Your task to perform on an android device: toggle sleep mode Image 0: 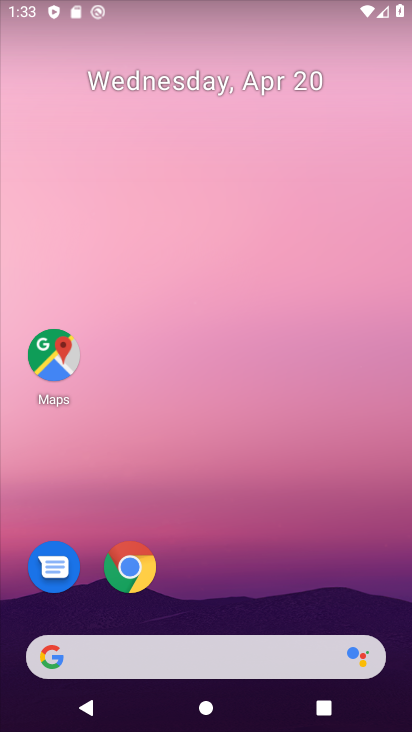
Step 0: drag from (261, 360) to (251, 142)
Your task to perform on an android device: toggle sleep mode Image 1: 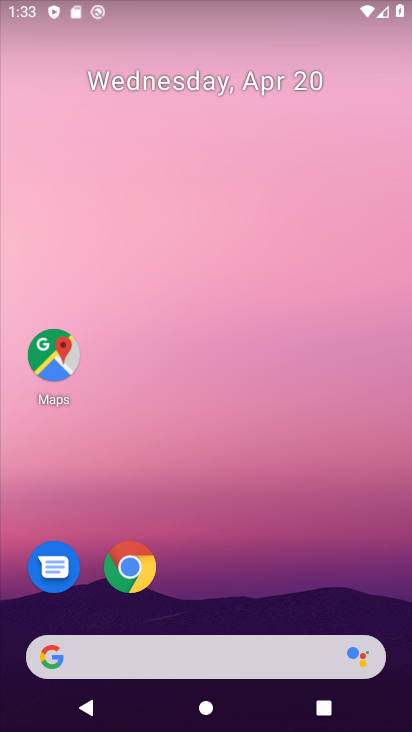
Step 1: drag from (283, 566) to (276, 103)
Your task to perform on an android device: toggle sleep mode Image 2: 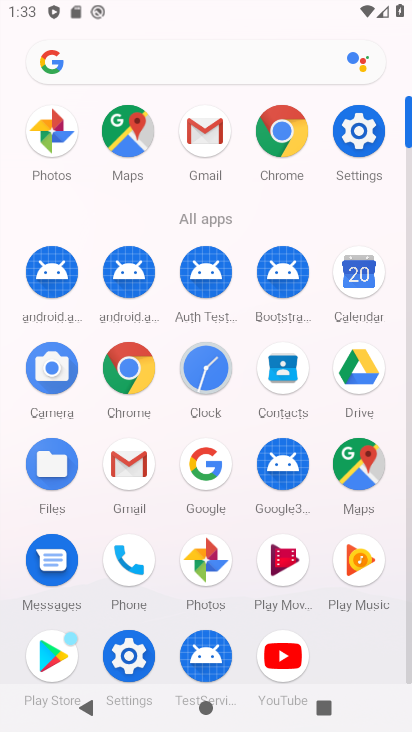
Step 2: click (355, 144)
Your task to perform on an android device: toggle sleep mode Image 3: 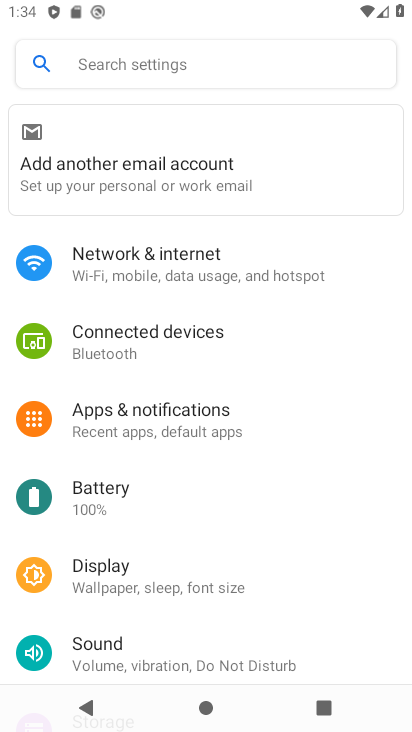
Step 3: click (130, 593)
Your task to perform on an android device: toggle sleep mode Image 4: 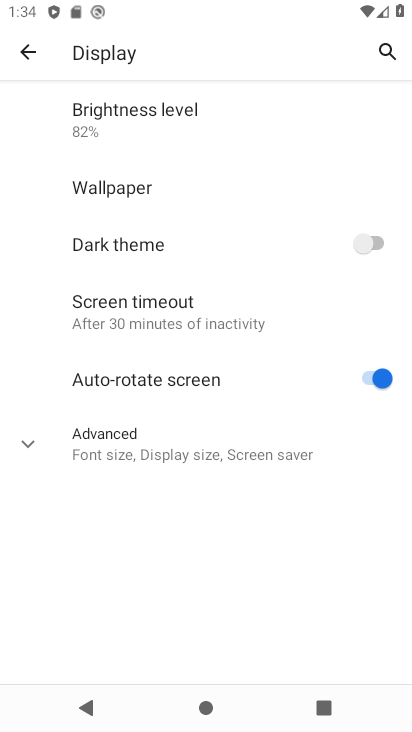
Step 4: click (22, 453)
Your task to perform on an android device: toggle sleep mode Image 5: 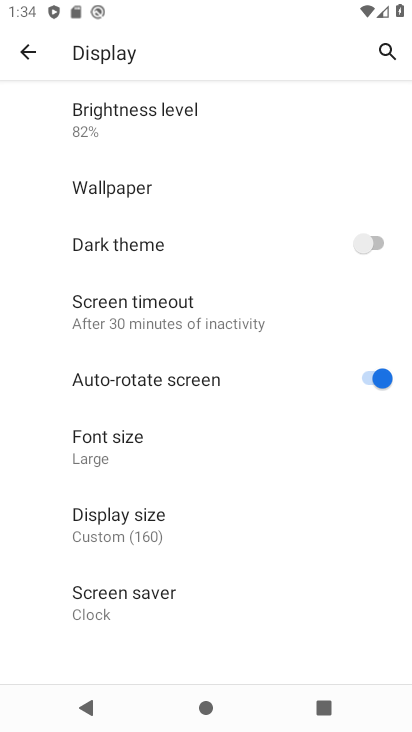
Step 5: task complete